Your task to perform on an android device: create a new album in the google photos Image 0: 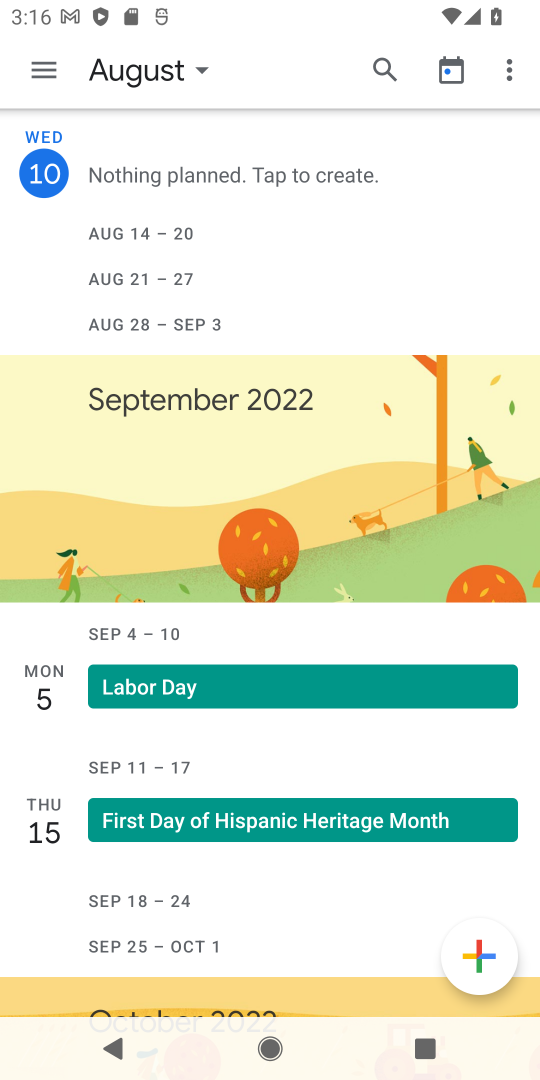
Step 0: press home button
Your task to perform on an android device: create a new album in the google photos Image 1: 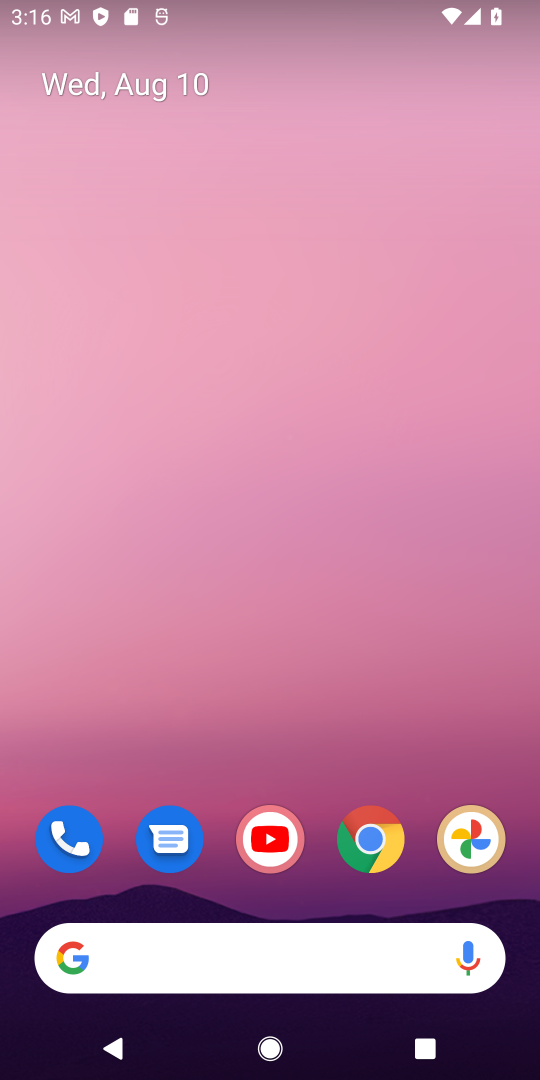
Step 1: click (470, 836)
Your task to perform on an android device: create a new album in the google photos Image 2: 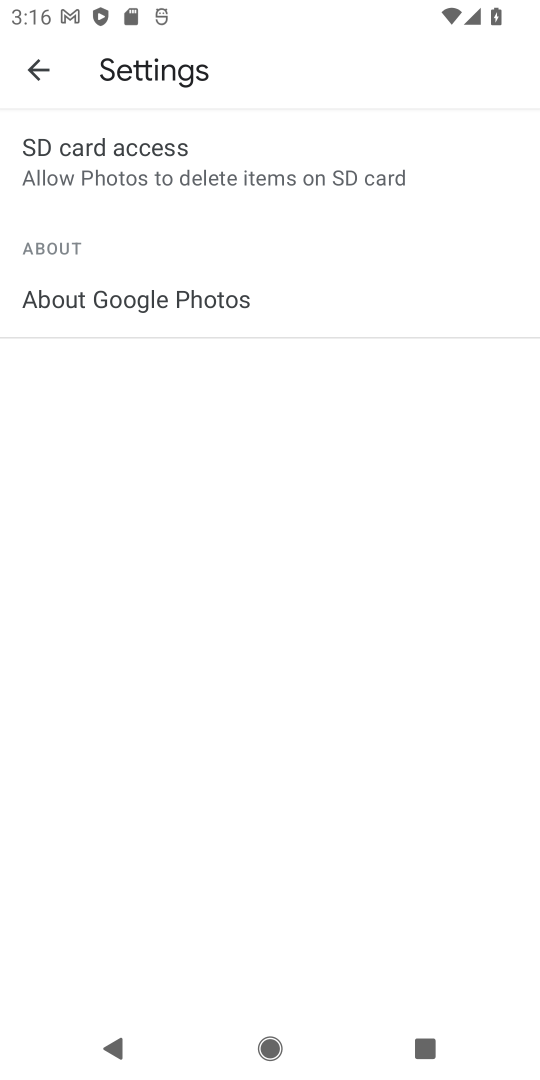
Step 2: click (46, 61)
Your task to perform on an android device: create a new album in the google photos Image 3: 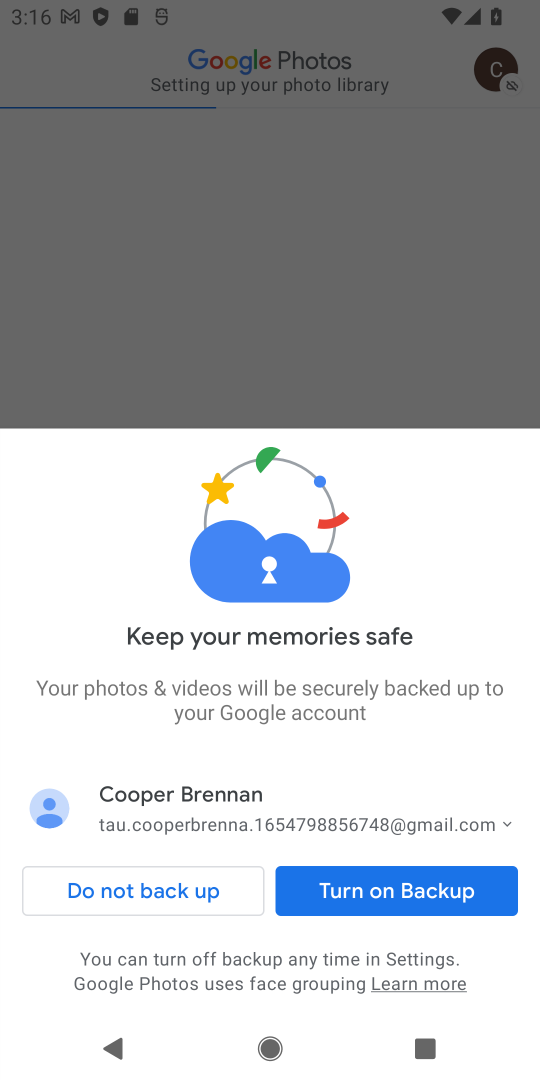
Step 3: click (416, 895)
Your task to perform on an android device: create a new album in the google photos Image 4: 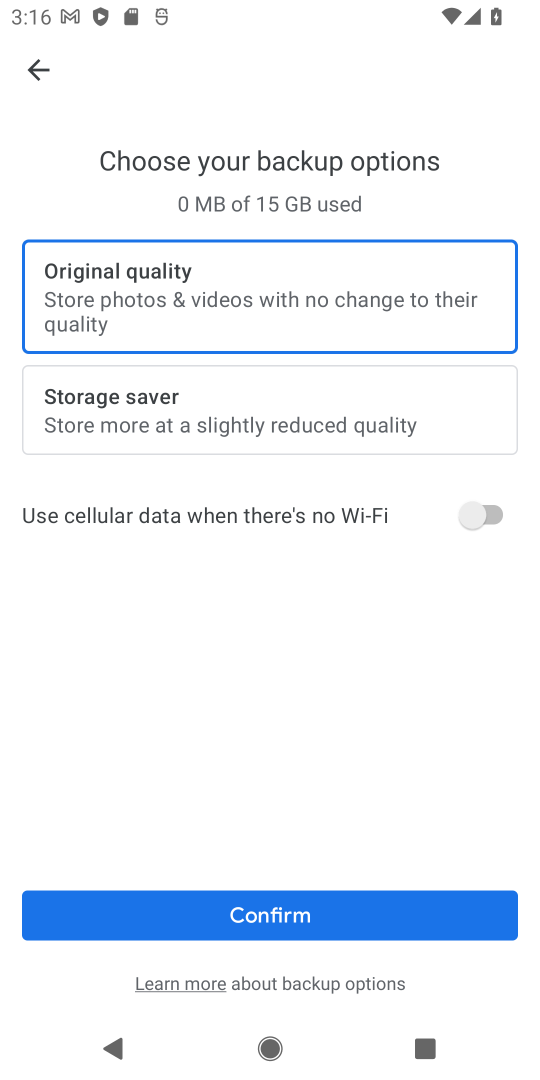
Step 4: click (409, 922)
Your task to perform on an android device: create a new album in the google photos Image 5: 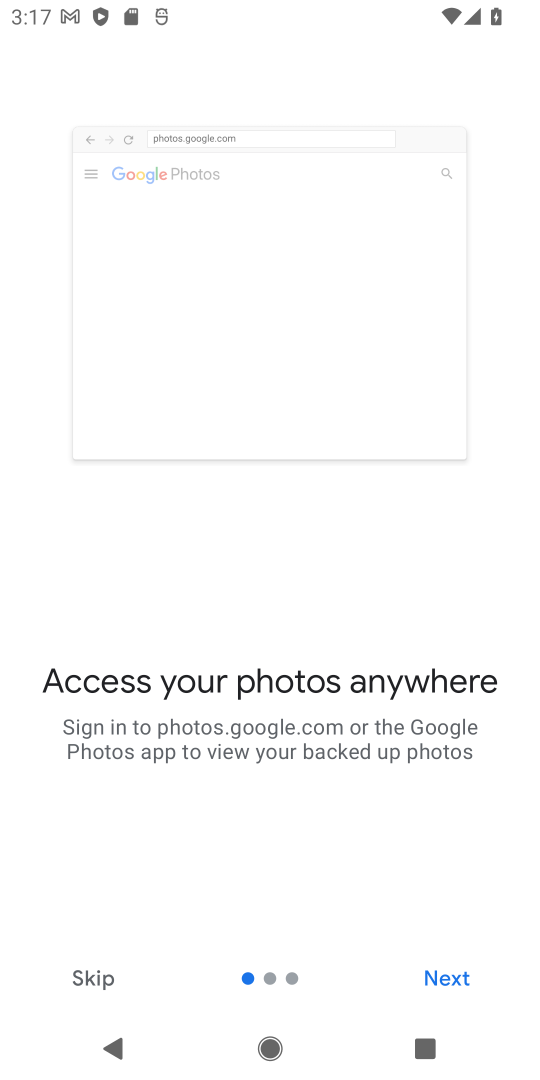
Step 5: click (442, 971)
Your task to perform on an android device: create a new album in the google photos Image 6: 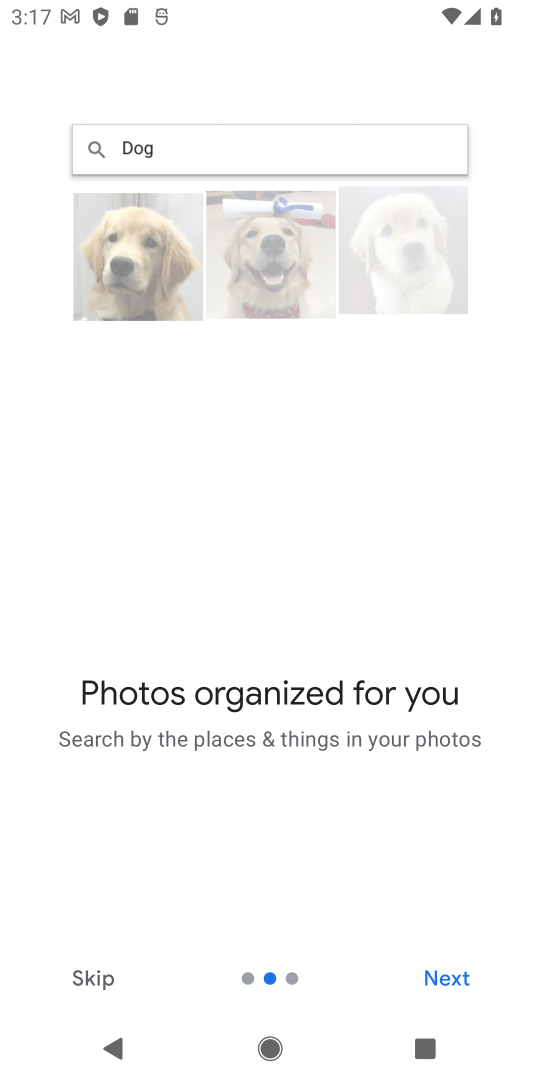
Step 6: click (442, 971)
Your task to perform on an android device: create a new album in the google photos Image 7: 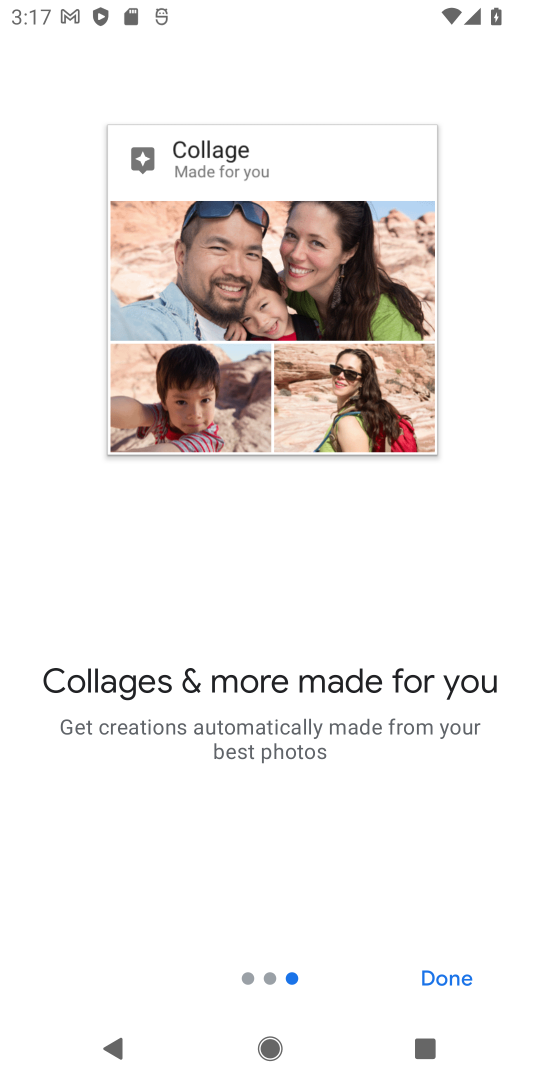
Step 7: click (442, 971)
Your task to perform on an android device: create a new album in the google photos Image 8: 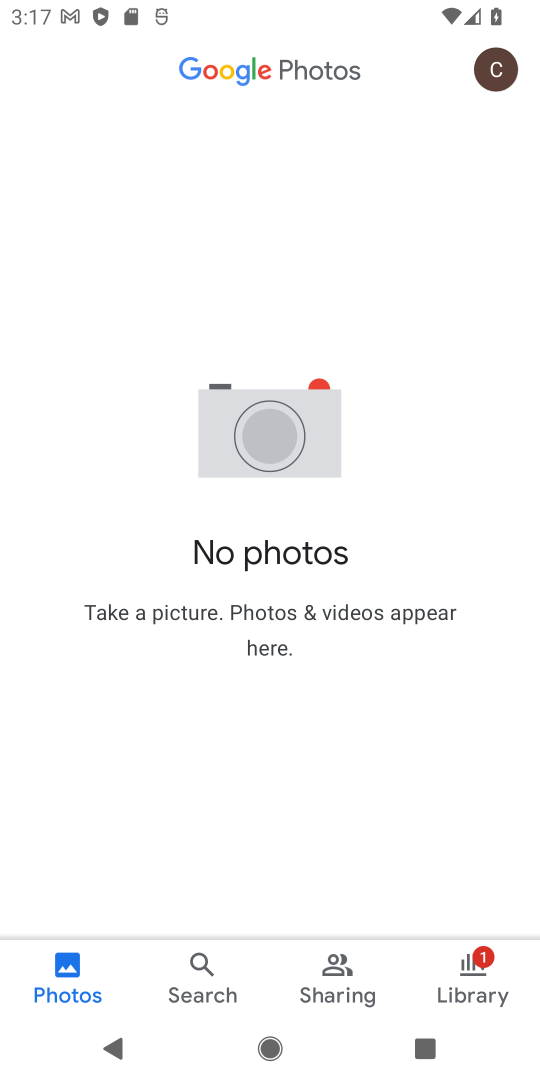
Step 8: click (498, 70)
Your task to perform on an android device: create a new album in the google photos Image 9: 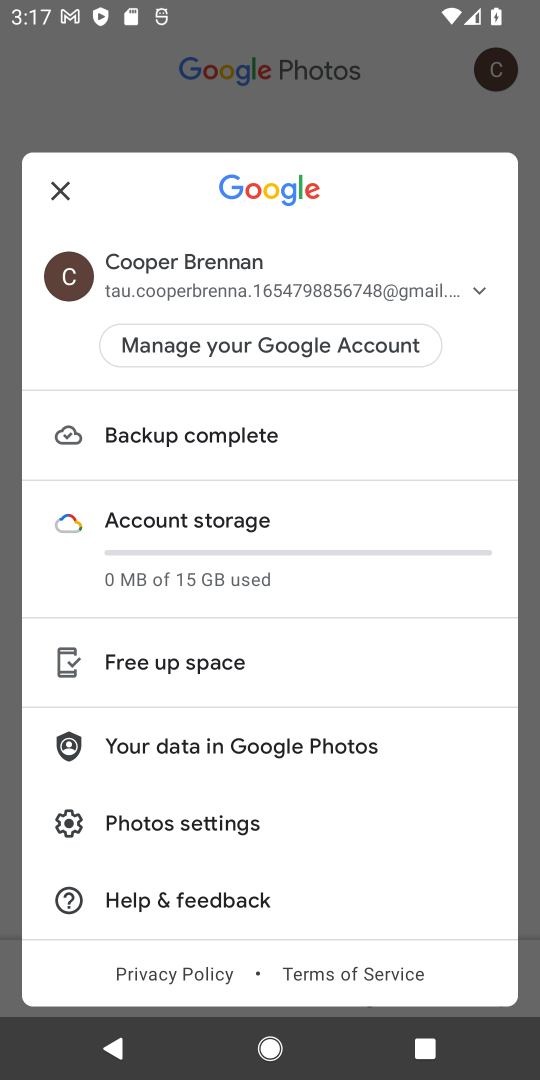
Step 9: click (59, 188)
Your task to perform on an android device: create a new album in the google photos Image 10: 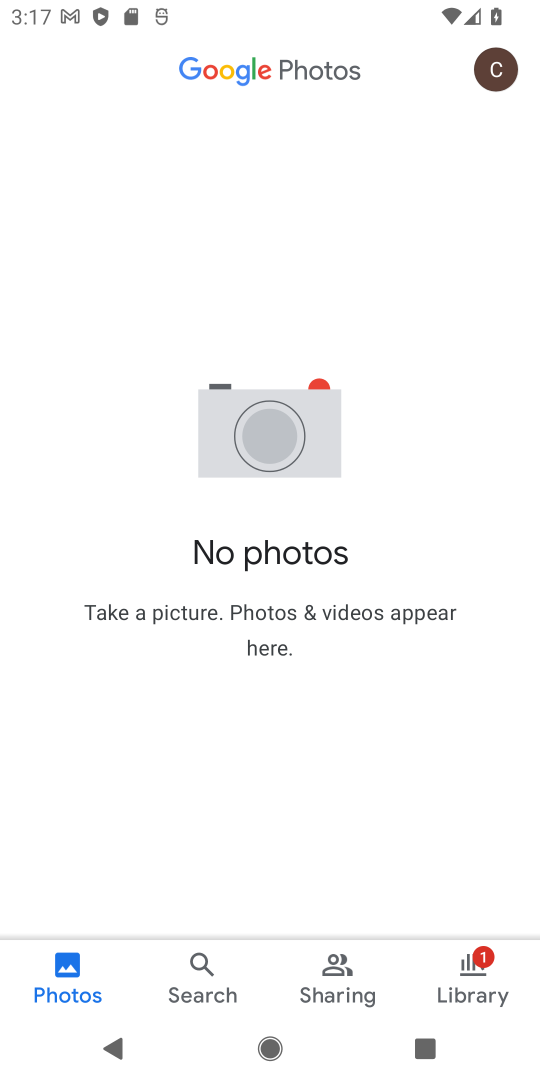
Step 10: click (476, 969)
Your task to perform on an android device: create a new album in the google photos Image 11: 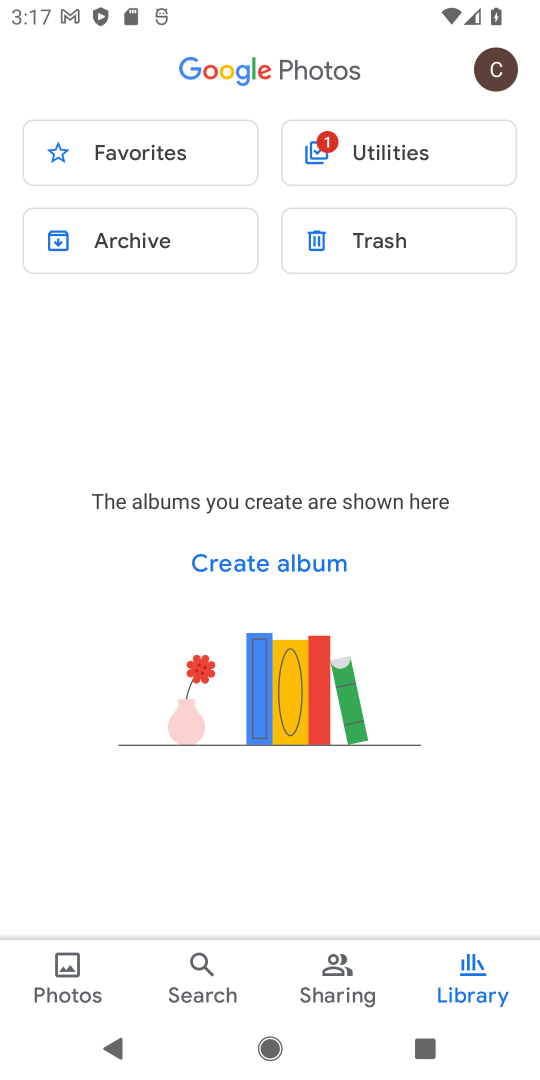
Step 11: click (316, 560)
Your task to perform on an android device: create a new album in the google photos Image 12: 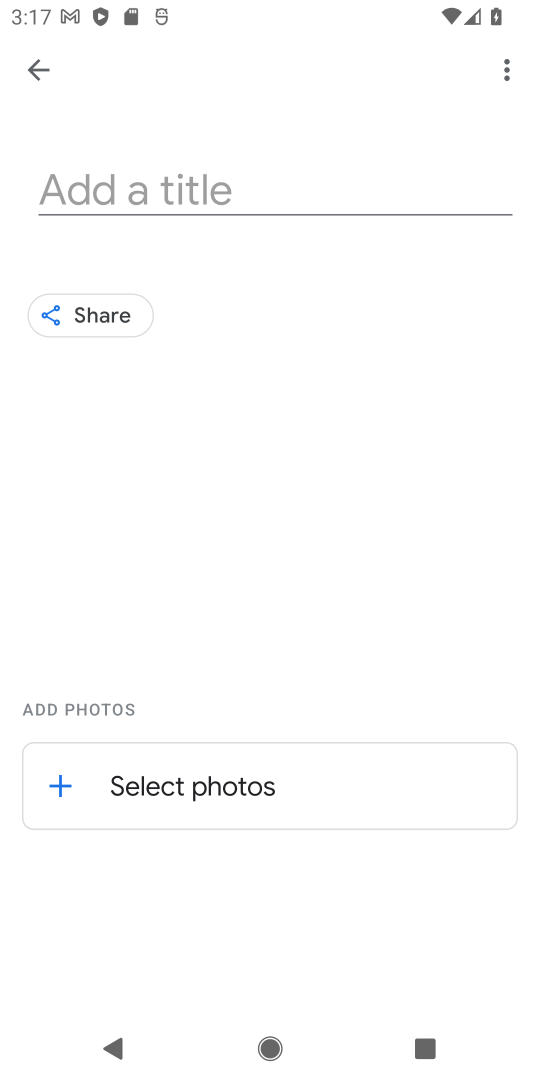
Step 12: click (297, 179)
Your task to perform on an android device: create a new album in the google photos Image 13: 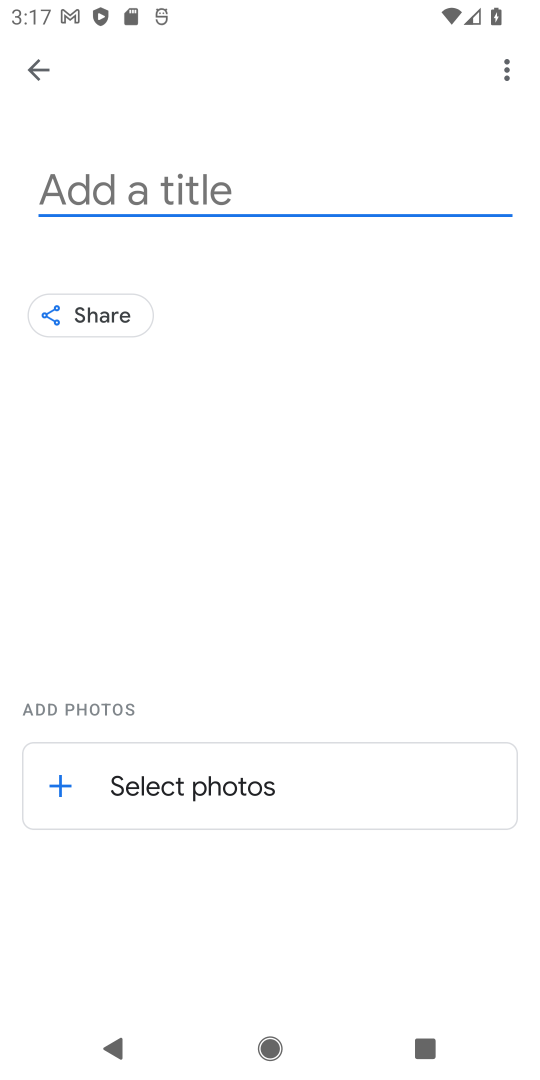
Step 13: click (352, 185)
Your task to perform on an android device: create a new album in the google photos Image 14: 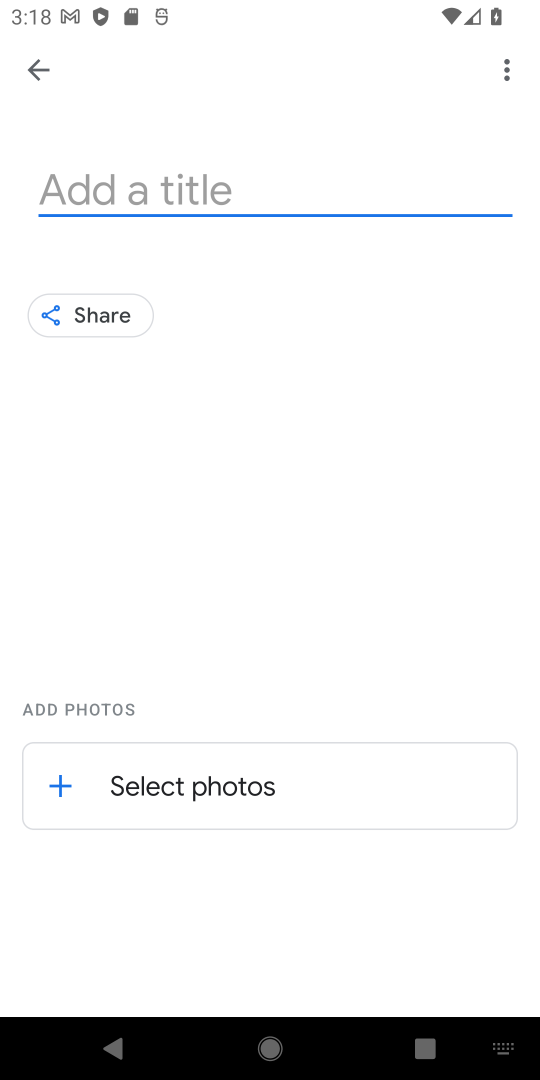
Step 14: type "Prayagraj"
Your task to perform on an android device: create a new album in the google photos Image 15: 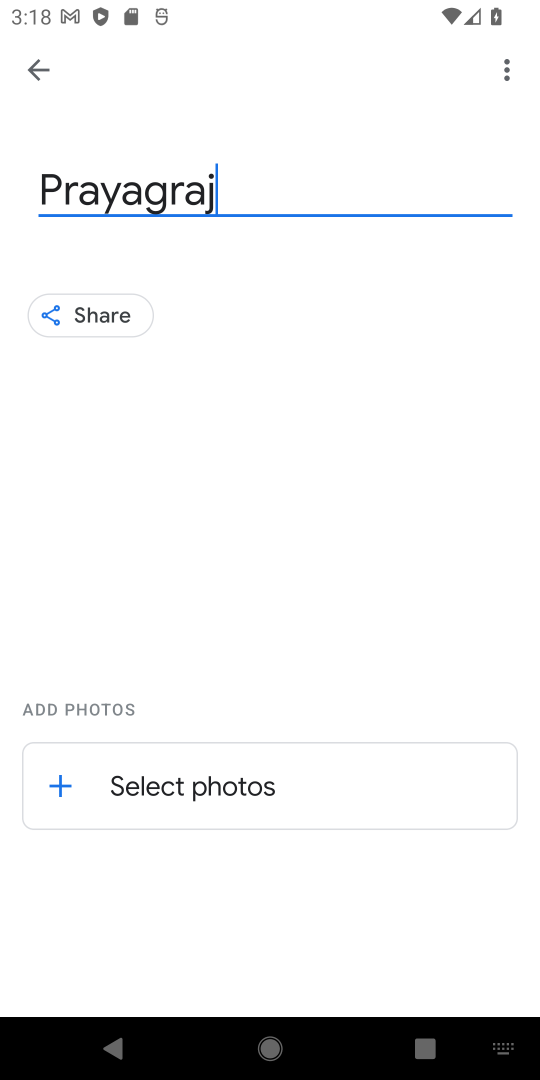
Step 15: click (61, 780)
Your task to perform on an android device: create a new album in the google photos Image 16: 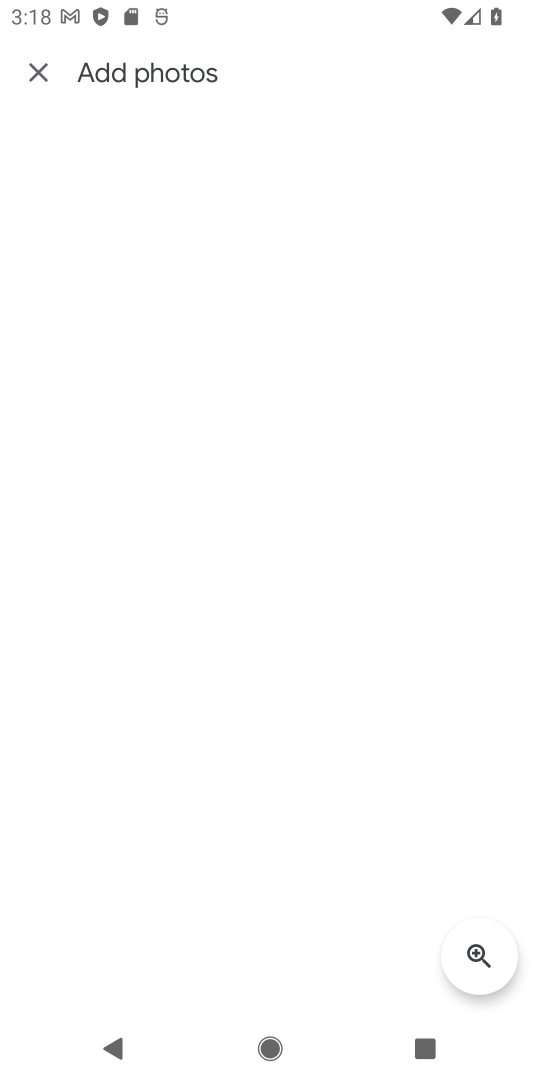
Step 16: task complete